Your task to perform on an android device: Go to ESPN.com Image 0: 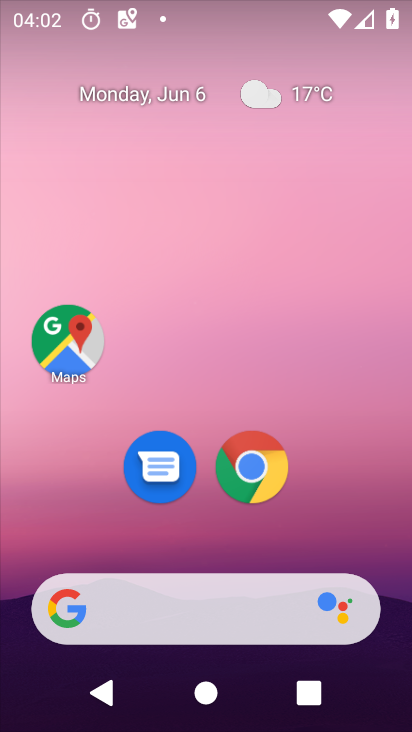
Step 0: click (250, 458)
Your task to perform on an android device: Go to ESPN.com Image 1: 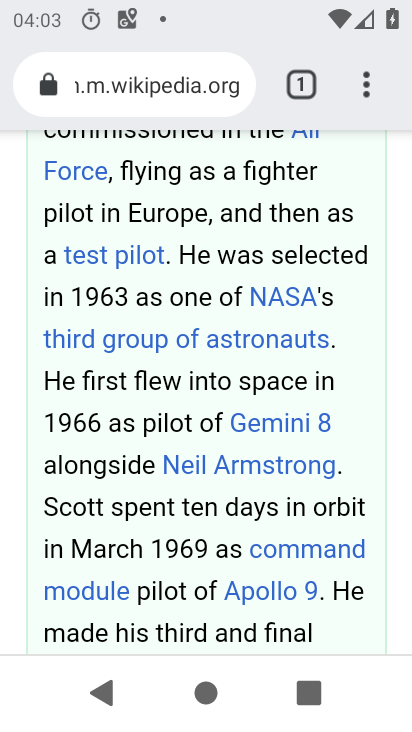
Step 1: click (296, 78)
Your task to perform on an android device: Go to ESPN.com Image 2: 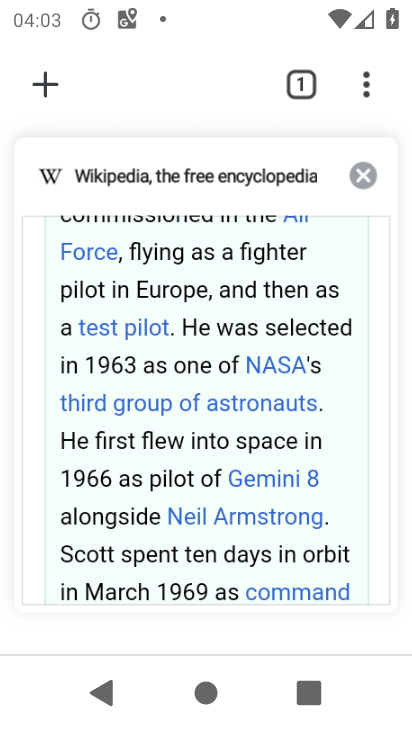
Step 2: click (364, 171)
Your task to perform on an android device: Go to ESPN.com Image 3: 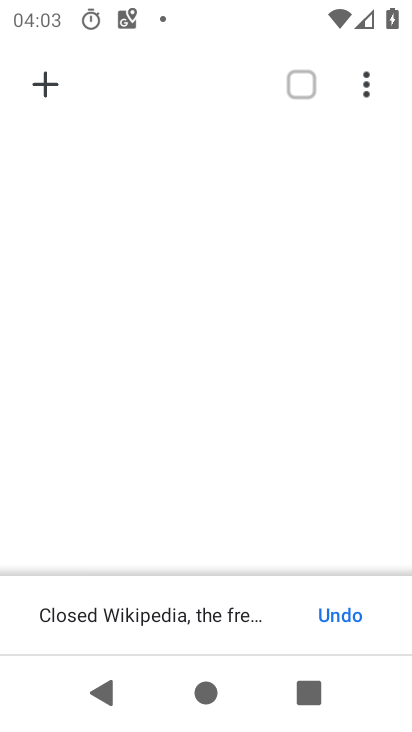
Step 3: click (49, 85)
Your task to perform on an android device: Go to ESPN.com Image 4: 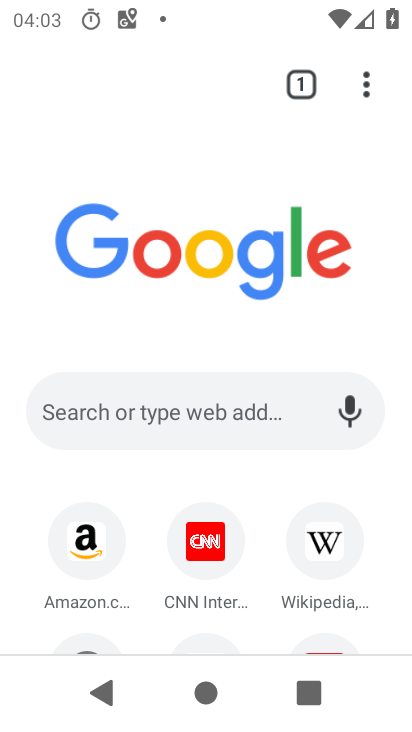
Step 4: drag from (257, 496) to (265, 52)
Your task to perform on an android device: Go to ESPN.com Image 5: 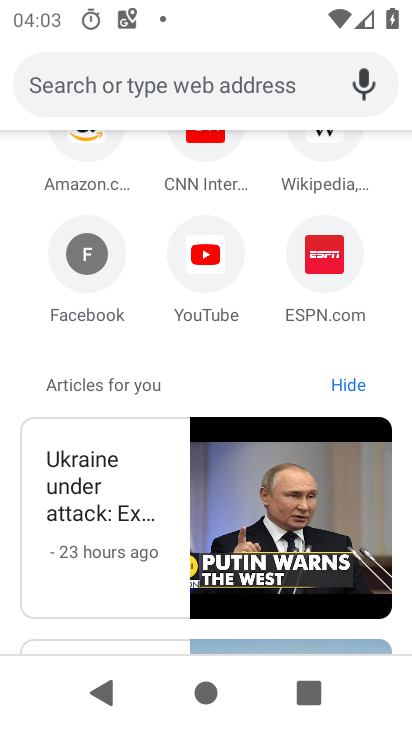
Step 5: click (322, 249)
Your task to perform on an android device: Go to ESPN.com Image 6: 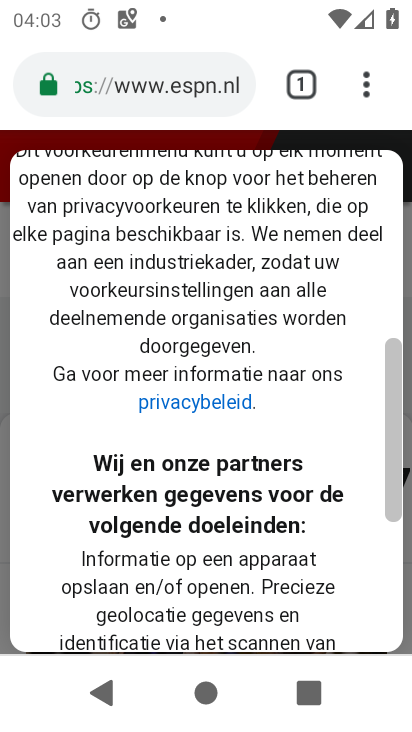
Step 6: drag from (392, 421) to (392, 587)
Your task to perform on an android device: Go to ESPN.com Image 7: 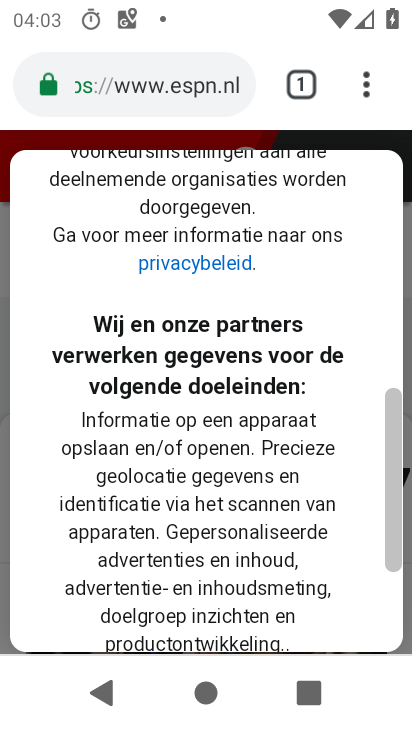
Step 7: click (294, 184)
Your task to perform on an android device: Go to ESPN.com Image 8: 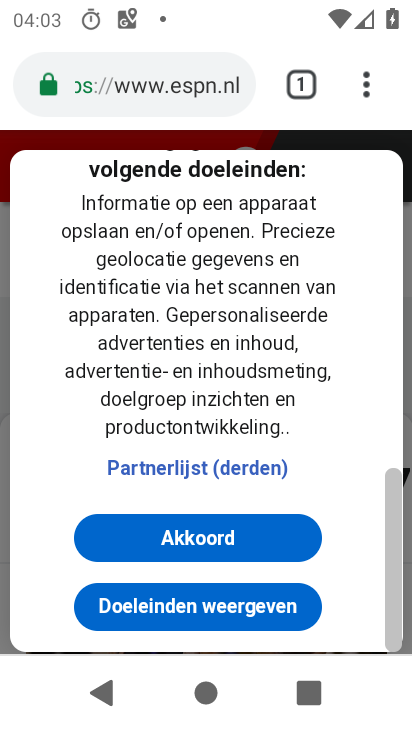
Step 8: click (196, 533)
Your task to perform on an android device: Go to ESPN.com Image 9: 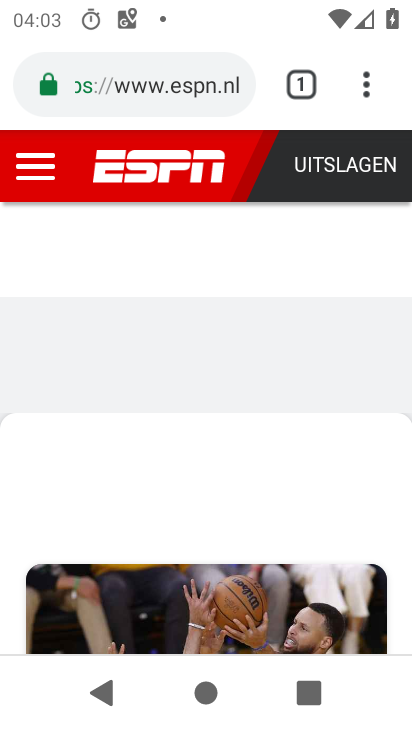
Step 9: task complete